Your task to perform on an android device: Is it going to rain tomorrow? Image 0: 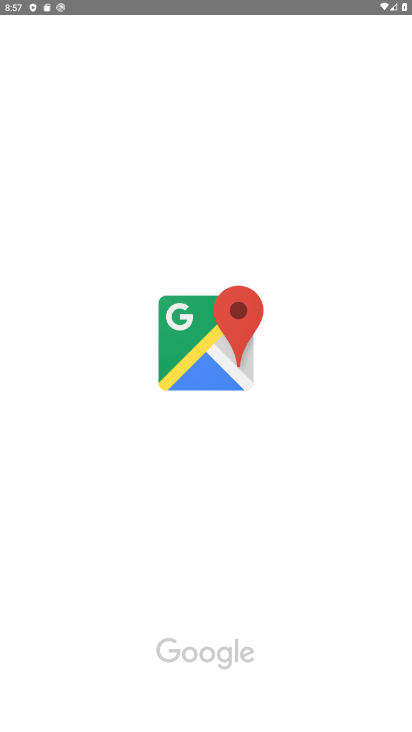
Step 0: drag from (350, 643) to (354, 423)
Your task to perform on an android device: Is it going to rain tomorrow? Image 1: 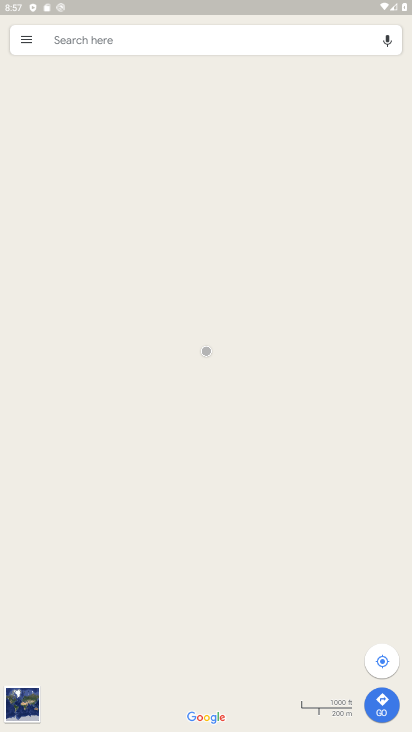
Step 1: press home button
Your task to perform on an android device: Is it going to rain tomorrow? Image 2: 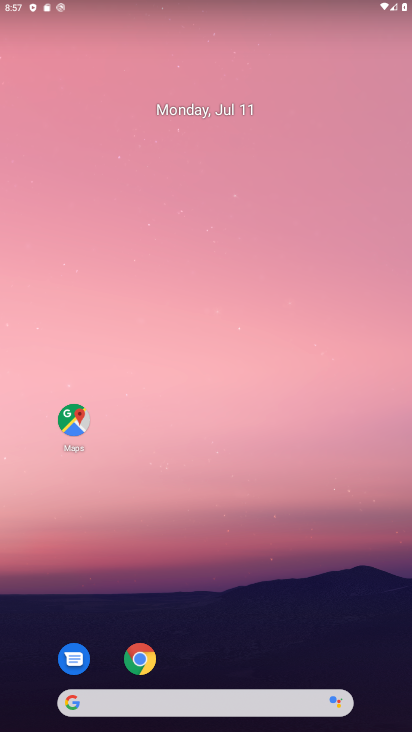
Step 2: click (252, 705)
Your task to perform on an android device: Is it going to rain tomorrow? Image 3: 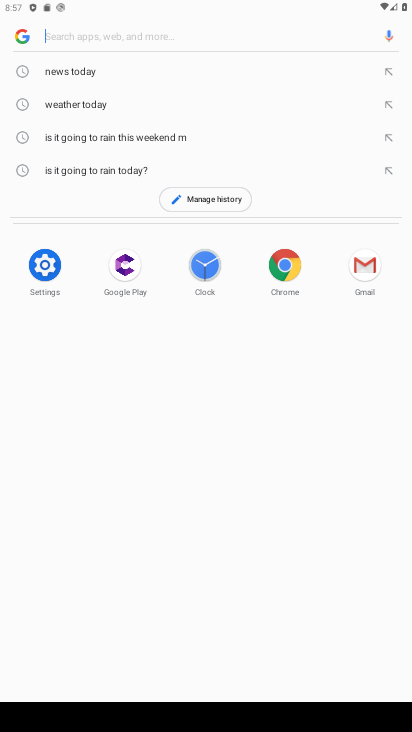
Step 3: type "weather"
Your task to perform on an android device: Is it going to rain tomorrow? Image 4: 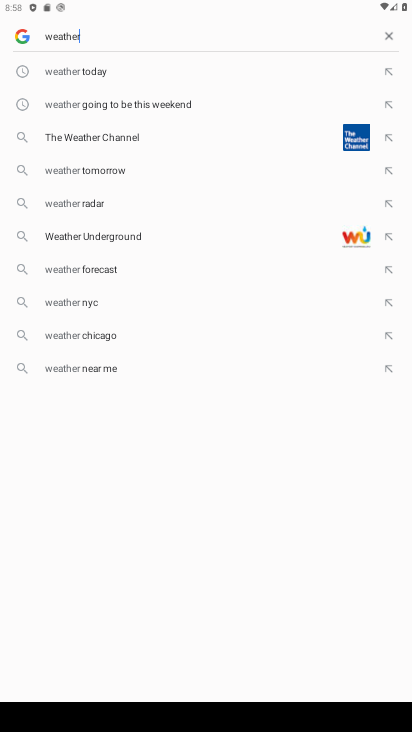
Step 4: click (111, 76)
Your task to perform on an android device: Is it going to rain tomorrow? Image 5: 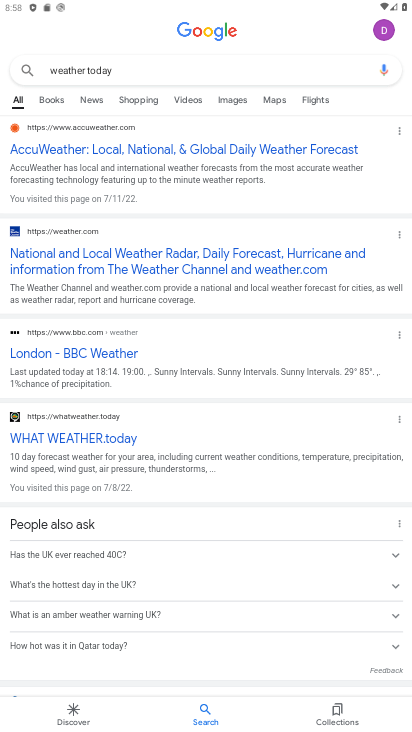
Step 5: task complete